Your task to perform on an android device: open app "Spotify: Music and Podcasts" (install if not already installed) and go to login screen Image 0: 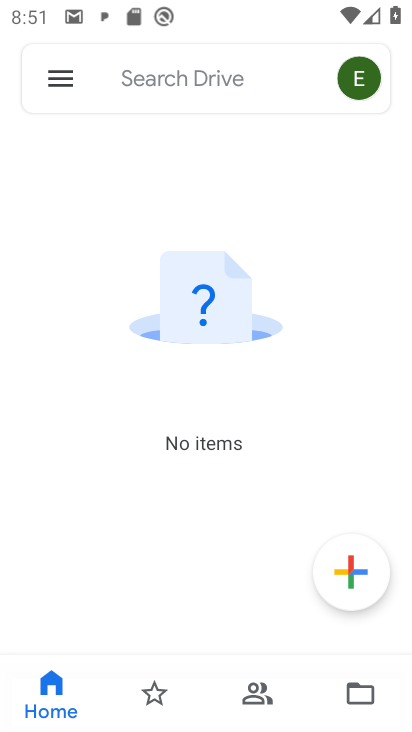
Step 0: press home button
Your task to perform on an android device: open app "Spotify: Music and Podcasts" (install if not already installed) and go to login screen Image 1: 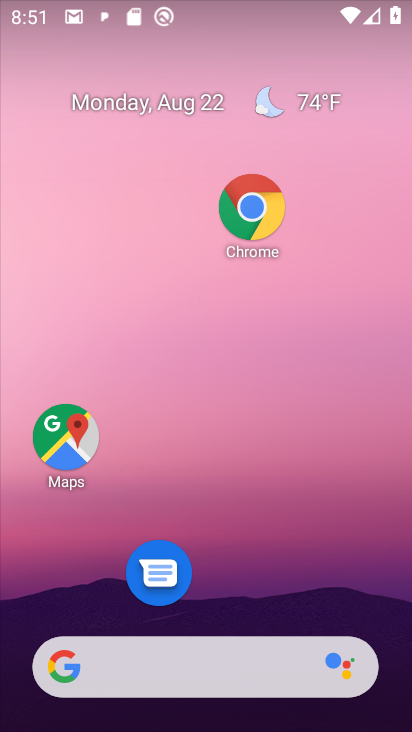
Step 1: drag from (216, 344) to (250, 79)
Your task to perform on an android device: open app "Spotify: Music and Podcasts" (install if not already installed) and go to login screen Image 2: 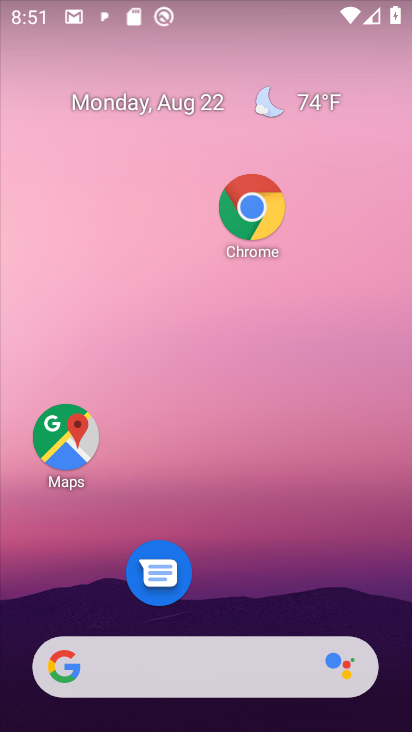
Step 2: drag from (247, 603) to (254, 21)
Your task to perform on an android device: open app "Spotify: Music and Podcasts" (install if not already installed) and go to login screen Image 3: 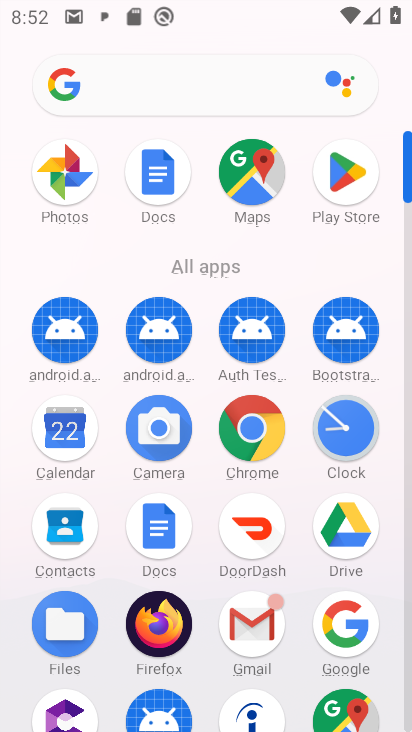
Step 3: click (352, 193)
Your task to perform on an android device: open app "Spotify: Music and Podcasts" (install if not already installed) and go to login screen Image 4: 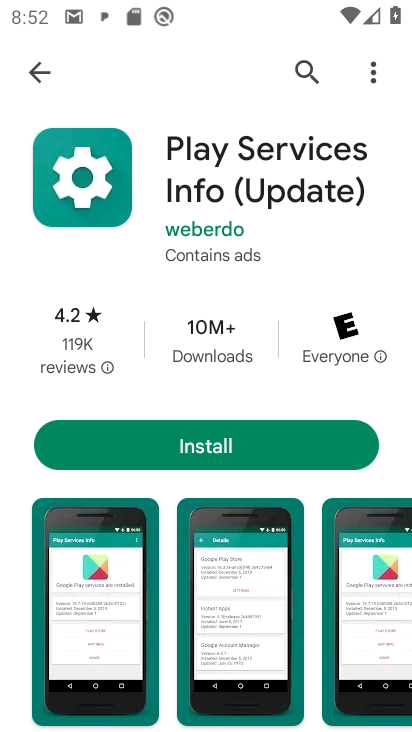
Step 4: click (43, 75)
Your task to perform on an android device: open app "Spotify: Music and Podcasts" (install if not already installed) and go to login screen Image 5: 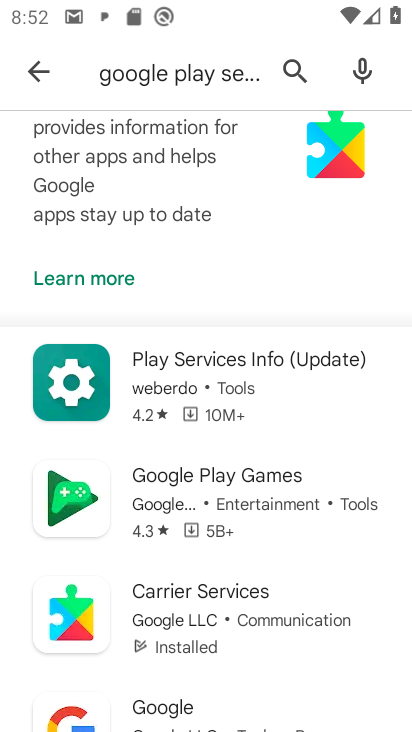
Step 5: click (163, 72)
Your task to perform on an android device: open app "Spotify: Music and Podcasts" (install if not already installed) and go to login screen Image 6: 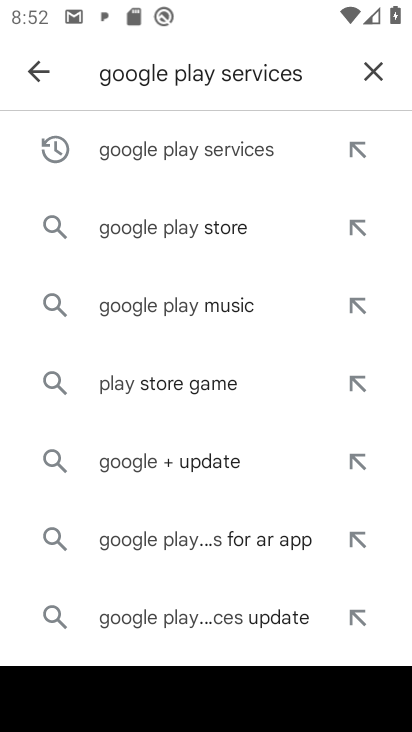
Step 6: click (374, 75)
Your task to perform on an android device: open app "Spotify: Music and Podcasts" (install if not already installed) and go to login screen Image 7: 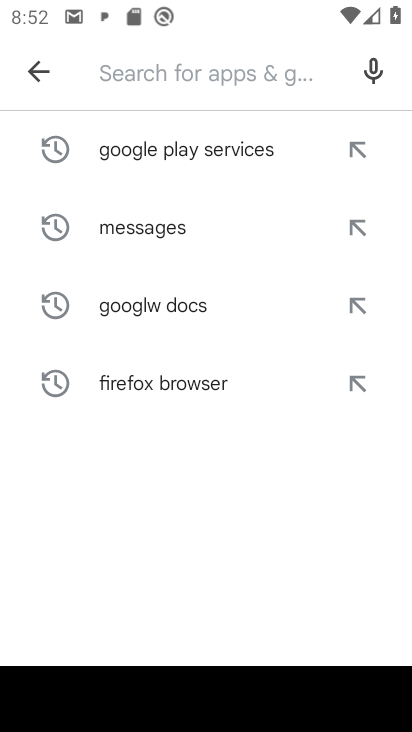
Step 7: type "Spotify"
Your task to perform on an android device: open app "Spotify: Music and Podcasts" (install if not already installed) and go to login screen Image 8: 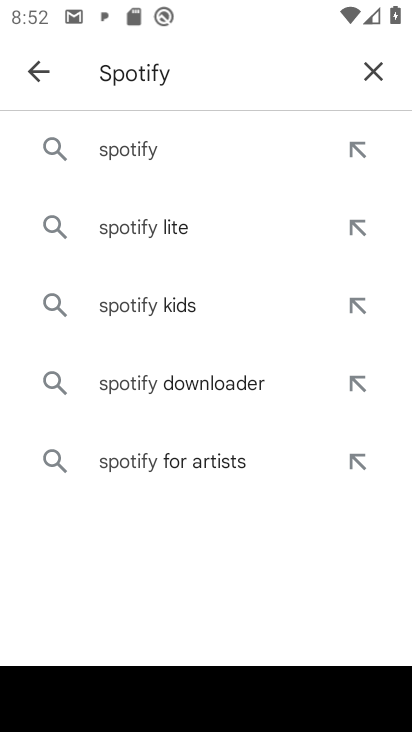
Step 8: click (147, 147)
Your task to perform on an android device: open app "Spotify: Music and Podcasts" (install if not already installed) and go to login screen Image 9: 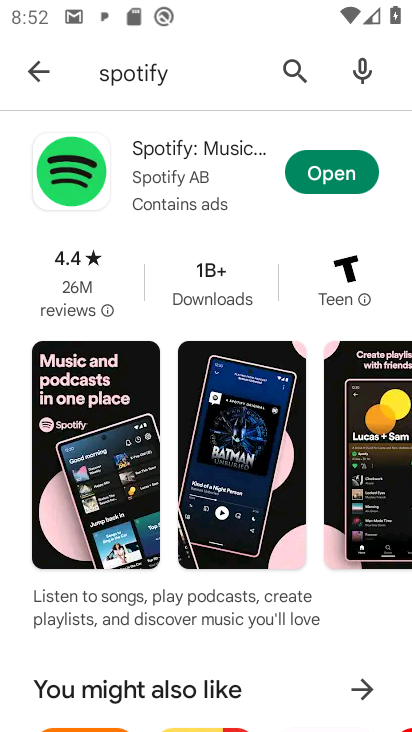
Step 9: click (331, 176)
Your task to perform on an android device: open app "Spotify: Music and Podcasts" (install if not already installed) and go to login screen Image 10: 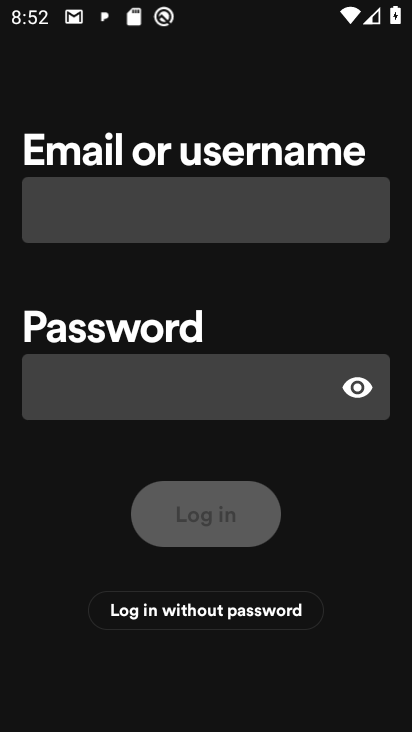
Step 10: task complete